Your task to perform on an android device: Open Google Maps and go to "Timeline" Image 0: 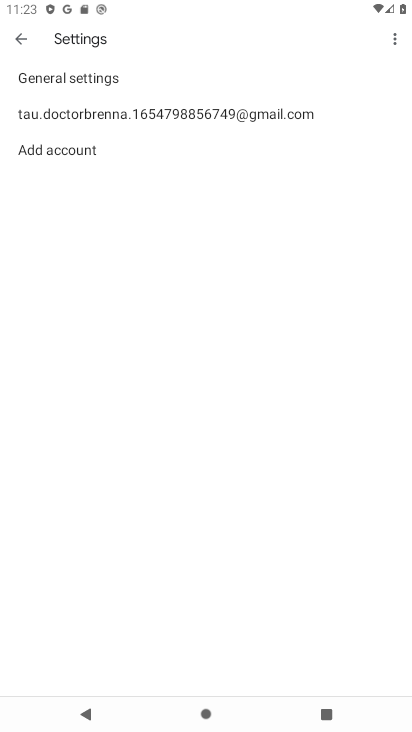
Step 0: press home button
Your task to perform on an android device: Open Google Maps and go to "Timeline" Image 1: 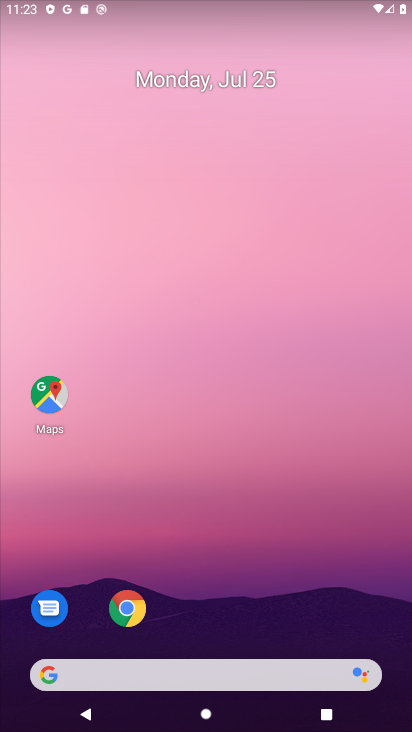
Step 1: click (55, 373)
Your task to perform on an android device: Open Google Maps and go to "Timeline" Image 2: 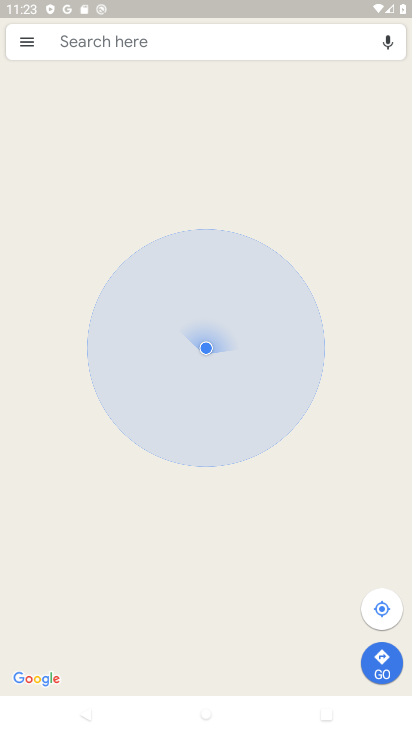
Step 2: click (38, 51)
Your task to perform on an android device: Open Google Maps and go to "Timeline" Image 3: 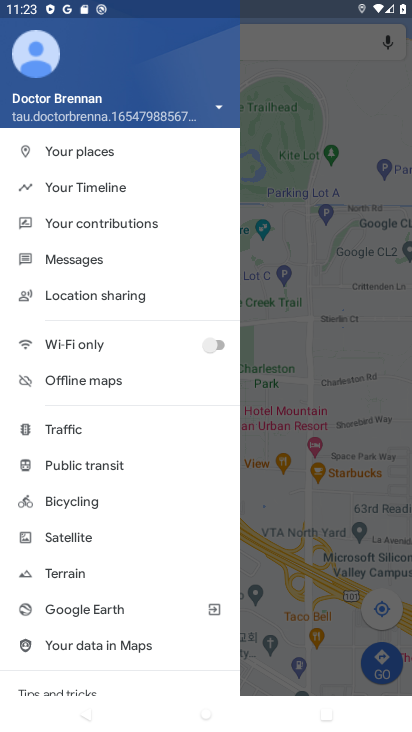
Step 3: click (135, 187)
Your task to perform on an android device: Open Google Maps and go to "Timeline" Image 4: 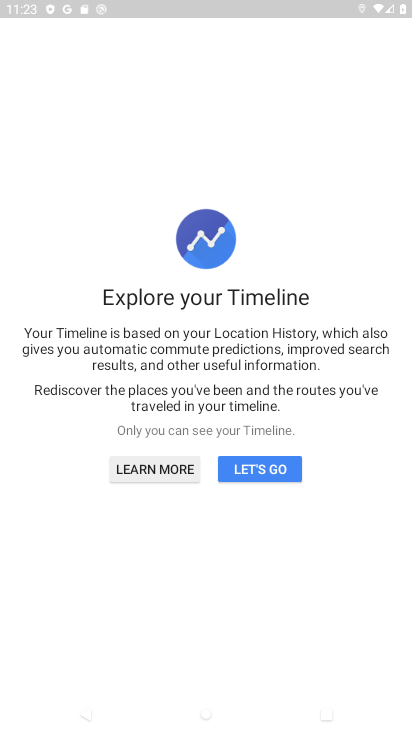
Step 4: click (247, 474)
Your task to perform on an android device: Open Google Maps and go to "Timeline" Image 5: 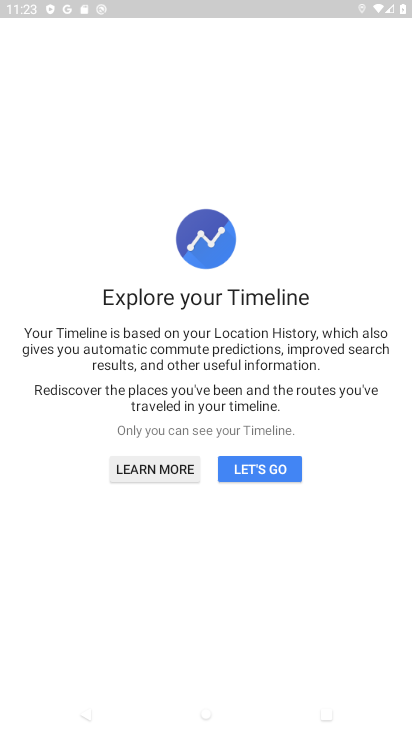
Step 5: click (247, 474)
Your task to perform on an android device: Open Google Maps and go to "Timeline" Image 6: 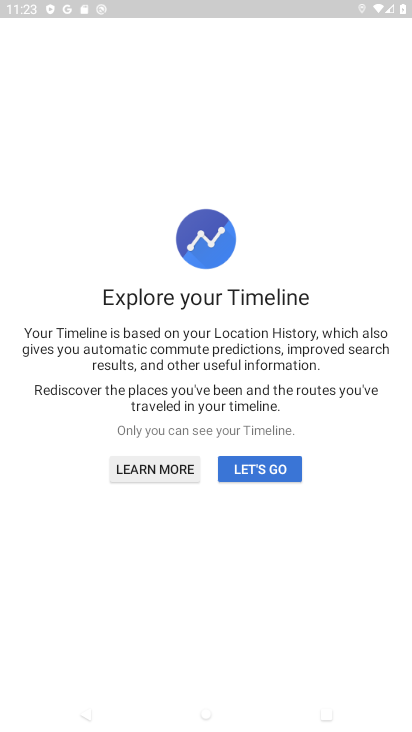
Step 6: click (247, 474)
Your task to perform on an android device: Open Google Maps and go to "Timeline" Image 7: 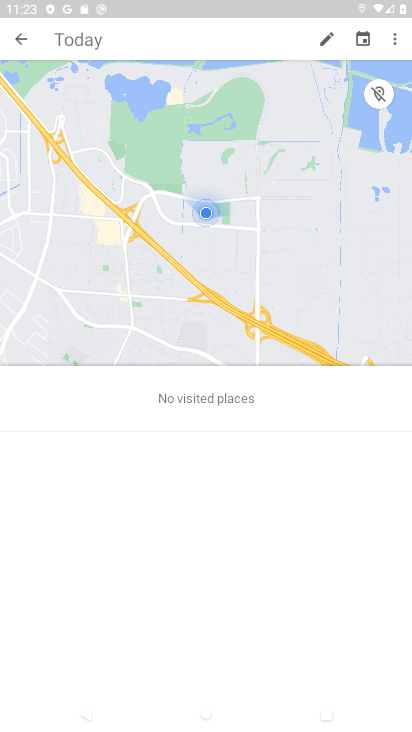
Step 7: click (247, 474)
Your task to perform on an android device: Open Google Maps and go to "Timeline" Image 8: 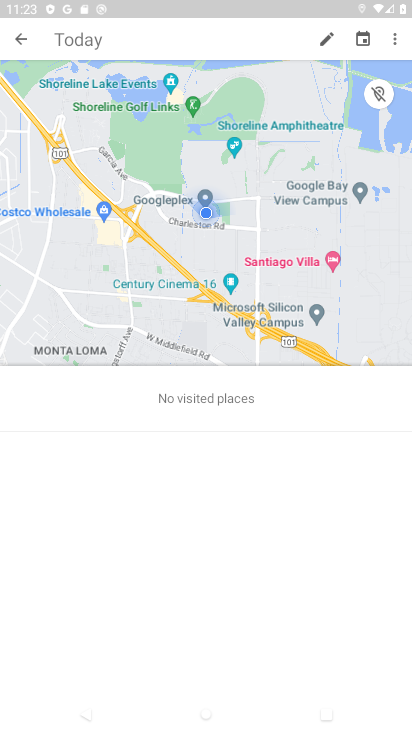
Step 8: task complete